Your task to perform on an android device: Open internet settings Image 0: 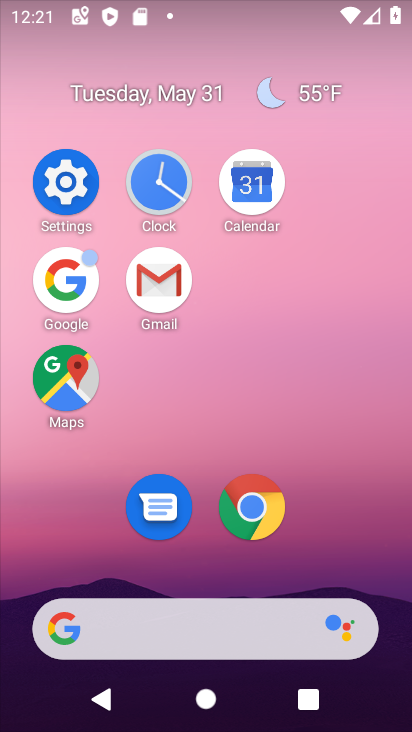
Step 0: click (85, 187)
Your task to perform on an android device: Open internet settings Image 1: 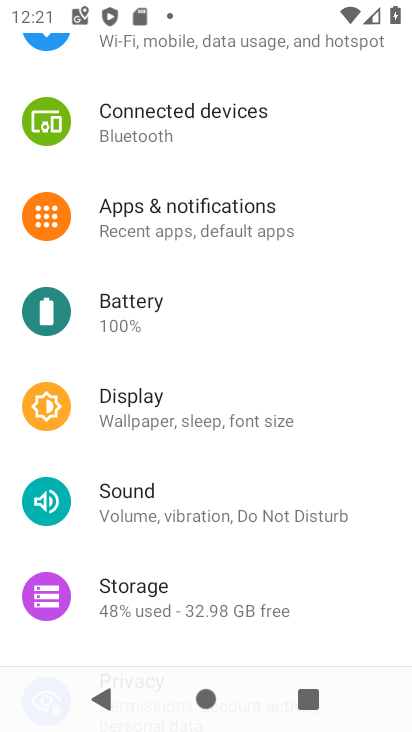
Step 1: drag from (315, 172) to (301, 453)
Your task to perform on an android device: Open internet settings Image 2: 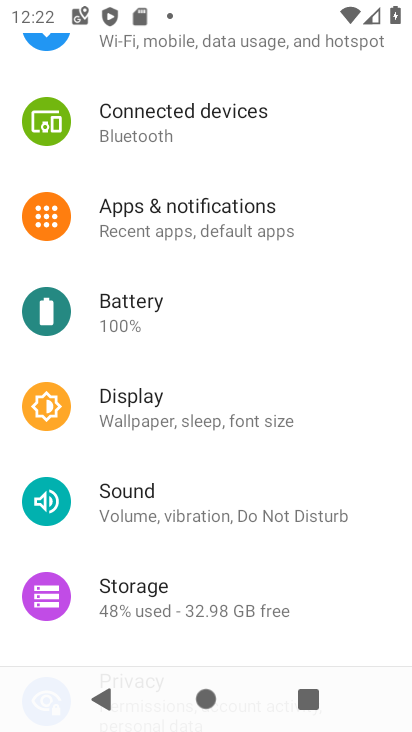
Step 2: drag from (283, 137) to (308, 526)
Your task to perform on an android device: Open internet settings Image 3: 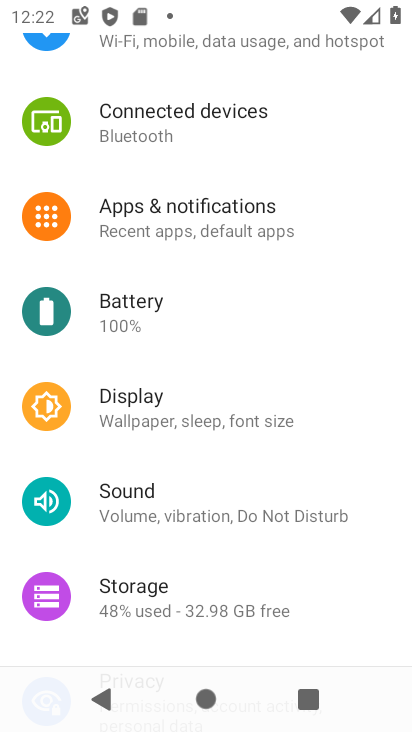
Step 3: click (247, 44)
Your task to perform on an android device: Open internet settings Image 4: 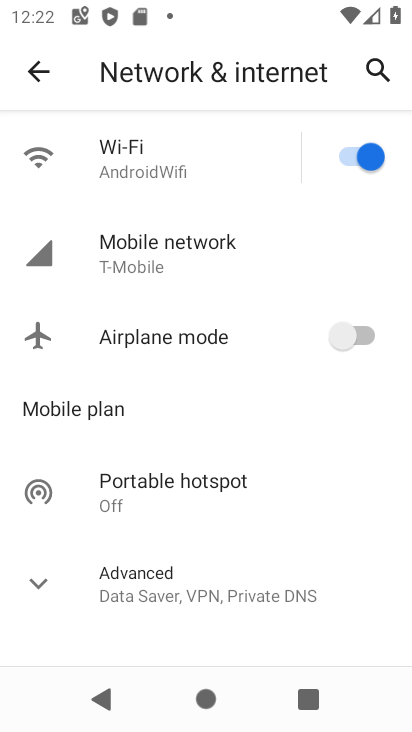
Step 4: task complete